Your task to perform on an android device: choose inbox layout in the gmail app Image 0: 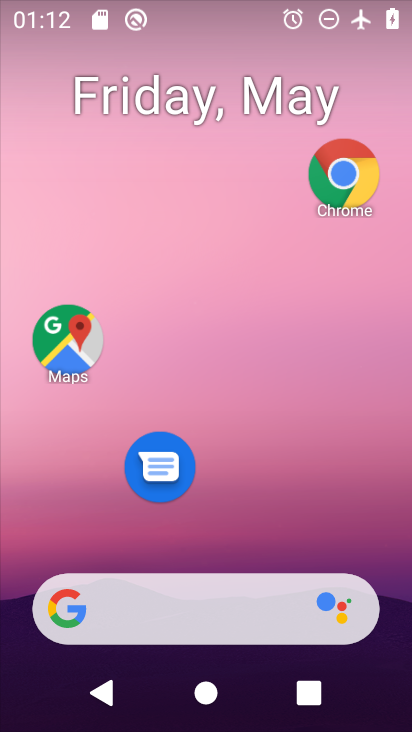
Step 0: drag from (294, 504) to (309, 182)
Your task to perform on an android device: choose inbox layout in the gmail app Image 1: 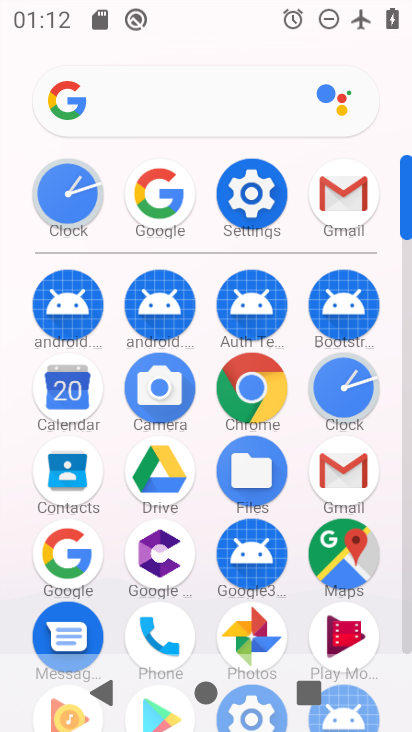
Step 1: click (343, 477)
Your task to perform on an android device: choose inbox layout in the gmail app Image 2: 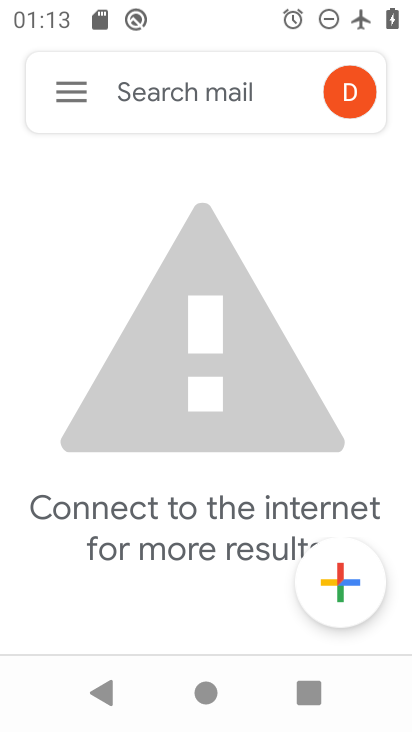
Step 2: click (61, 100)
Your task to perform on an android device: choose inbox layout in the gmail app Image 3: 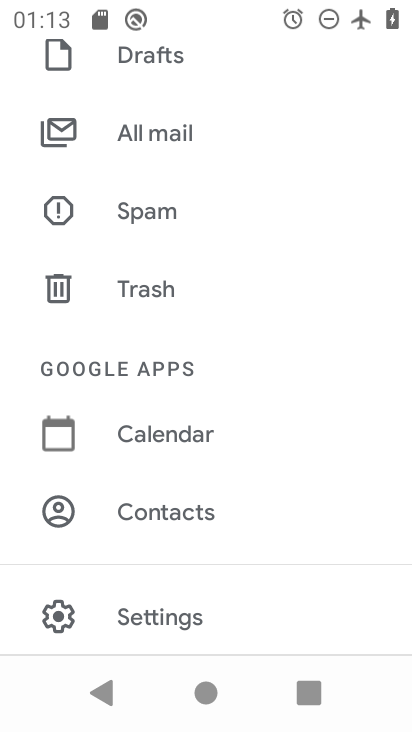
Step 3: click (163, 603)
Your task to perform on an android device: choose inbox layout in the gmail app Image 4: 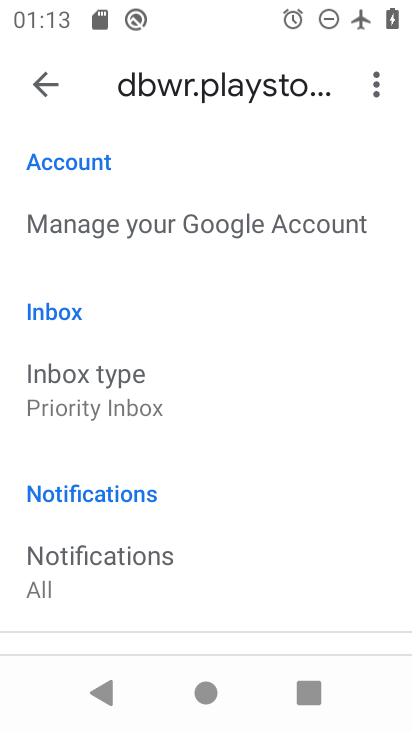
Step 4: click (162, 389)
Your task to perform on an android device: choose inbox layout in the gmail app Image 5: 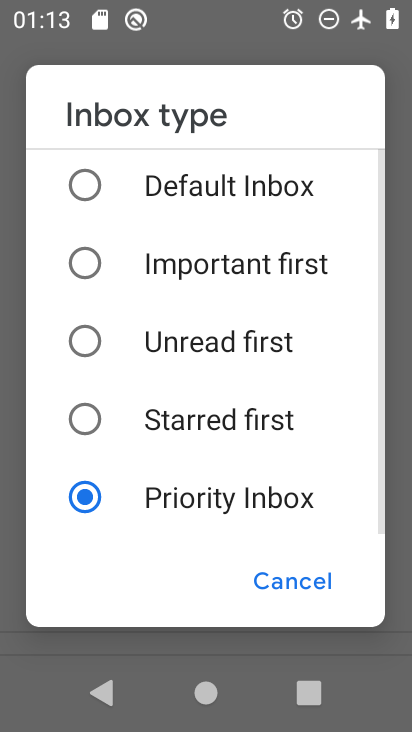
Step 5: click (144, 330)
Your task to perform on an android device: choose inbox layout in the gmail app Image 6: 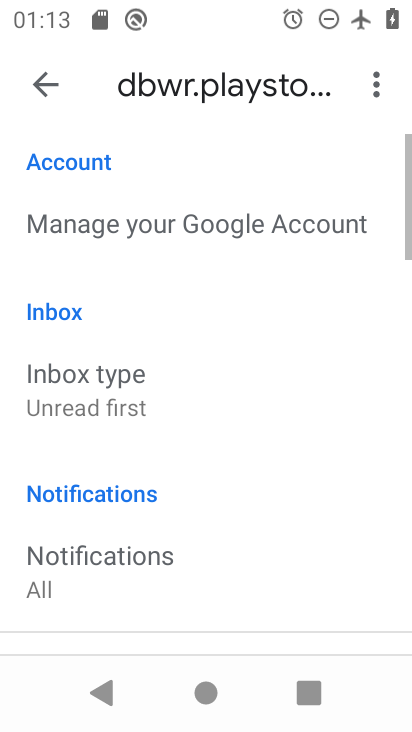
Step 6: task complete